Your task to perform on an android device: Show me the alarms in the clock app Image 0: 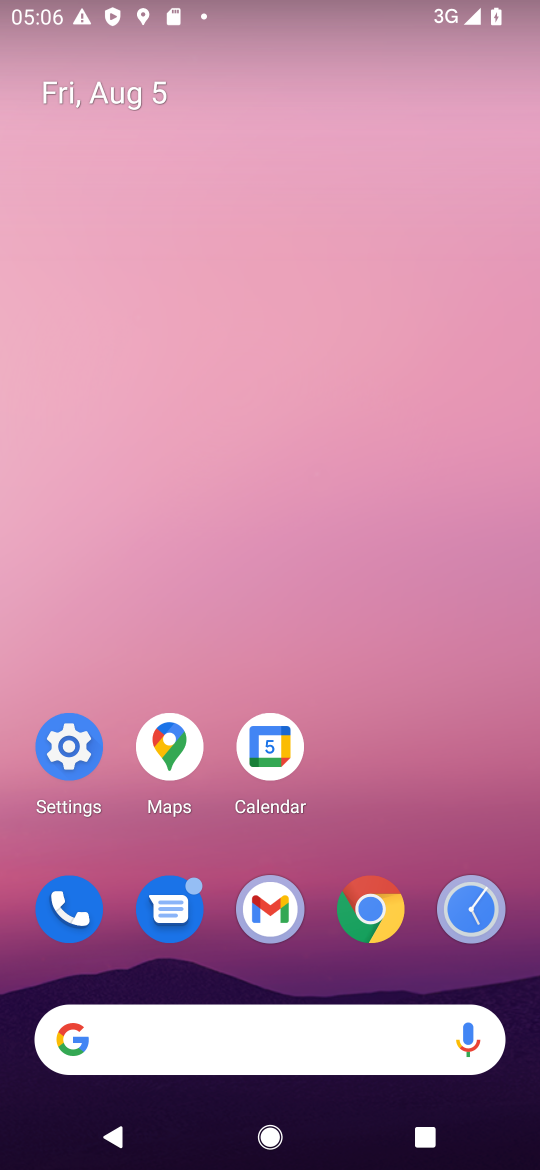
Step 0: press home button
Your task to perform on an android device: Show me the alarms in the clock app Image 1: 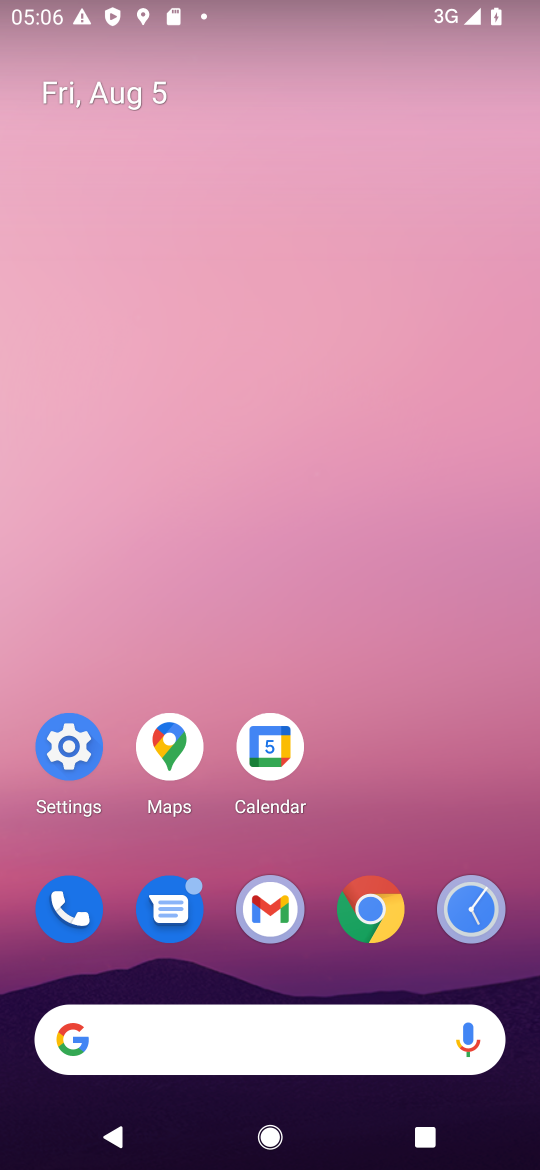
Step 1: click (476, 910)
Your task to perform on an android device: Show me the alarms in the clock app Image 2: 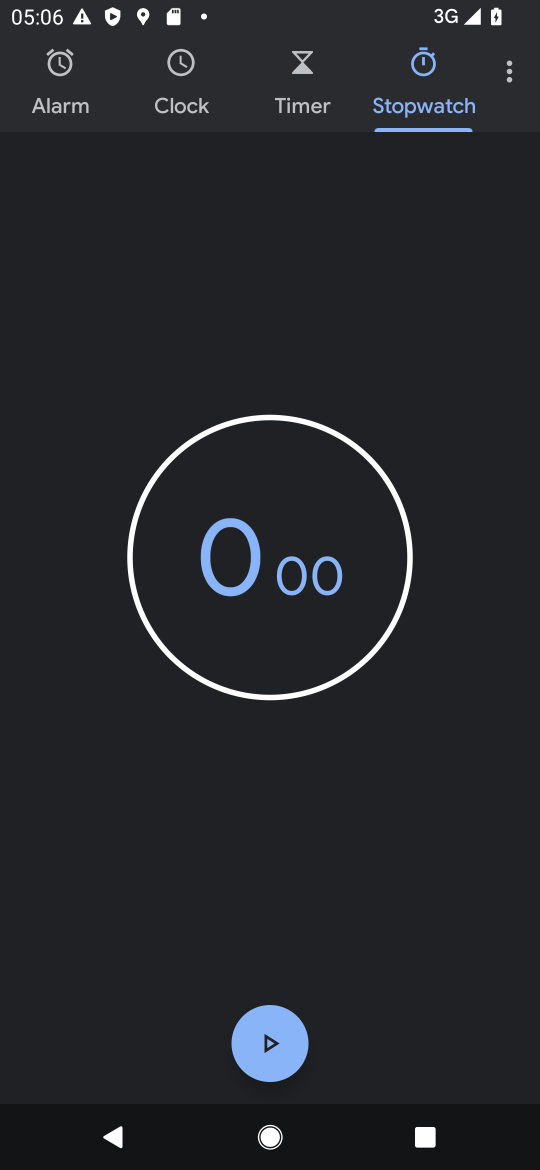
Step 2: click (63, 84)
Your task to perform on an android device: Show me the alarms in the clock app Image 3: 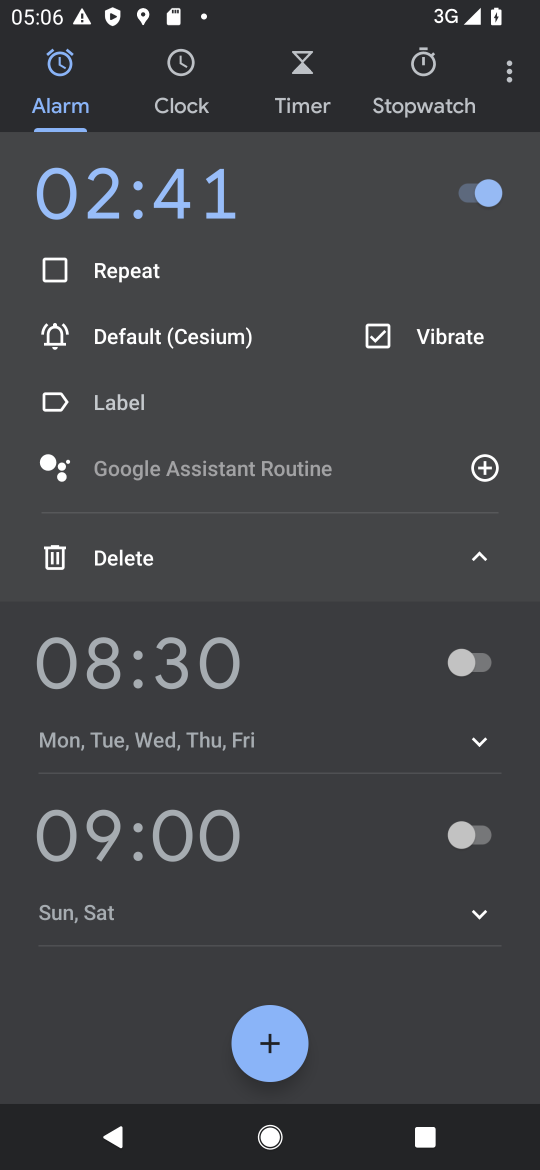
Step 3: task complete